Your task to perform on an android device: all mails in gmail Image 0: 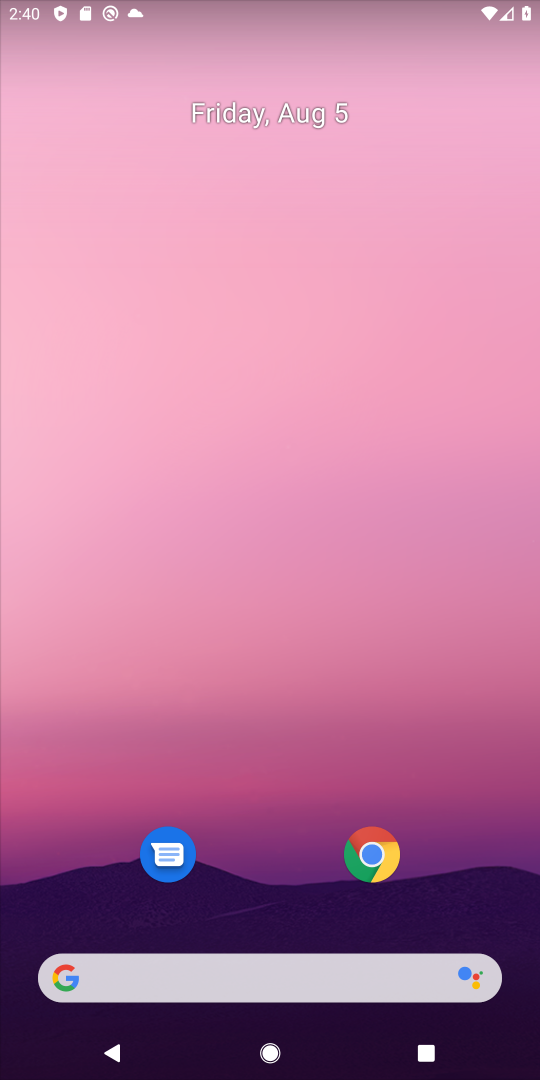
Step 0: drag from (109, 1020) to (220, 576)
Your task to perform on an android device: all mails in gmail Image 1: 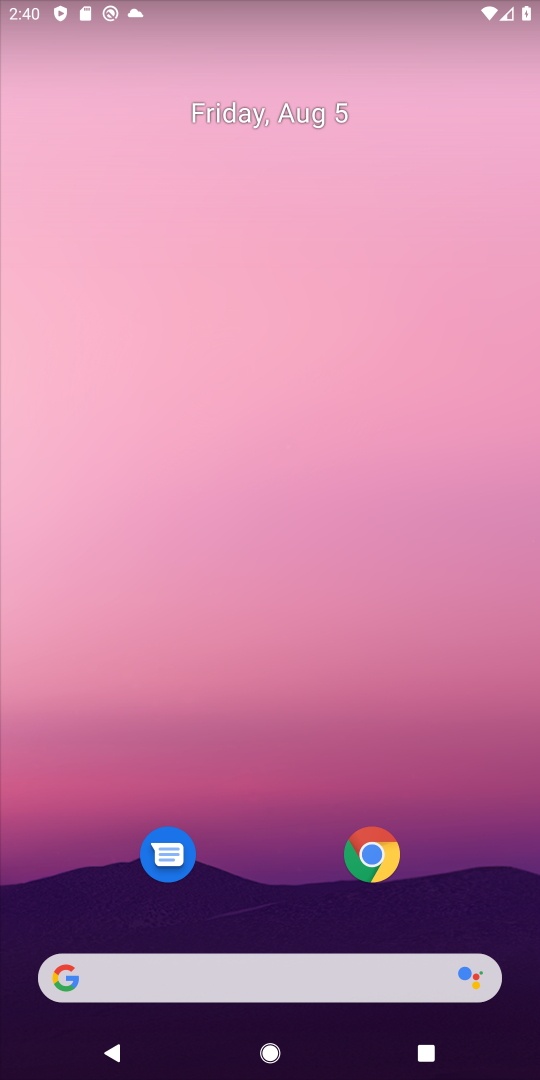
Step 1: drag from (37, 986) to (288, 388)
Your task to perform on an android device: all mails in gmail Image 2: 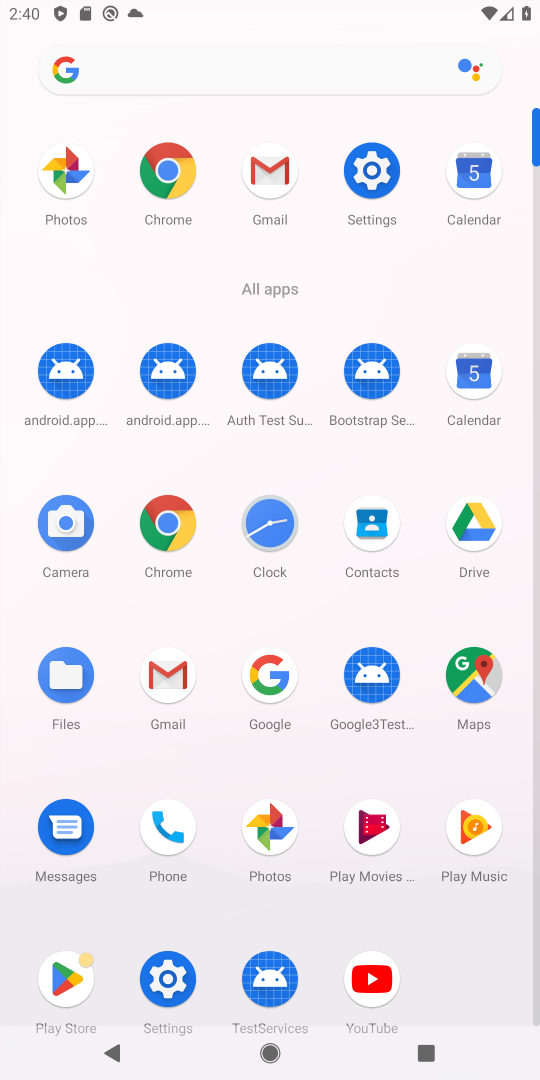
Step 2: click (164, 662)
Your task to perform on an android device: all mails in gmail Image 3: 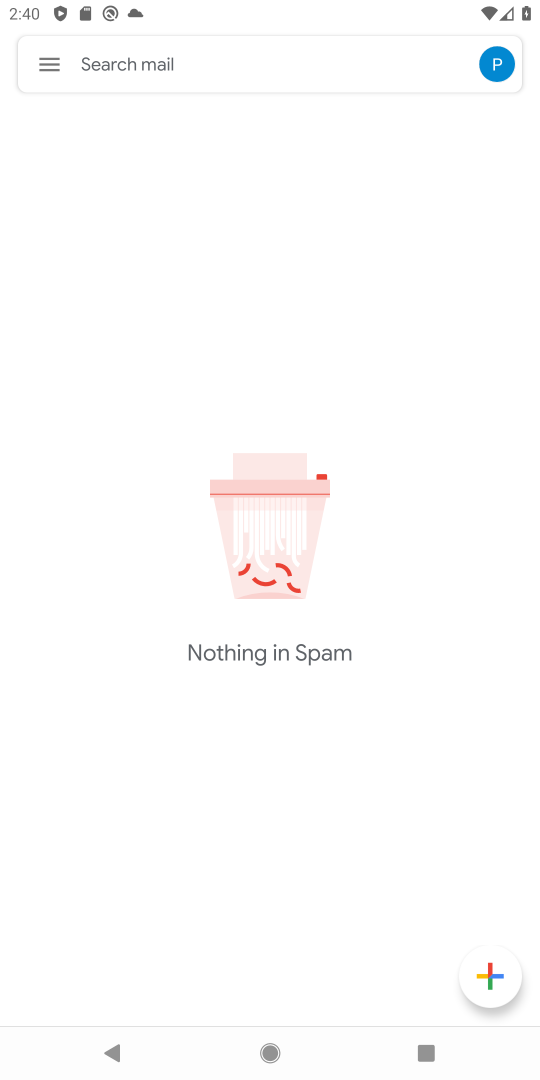
Step 3: click (54, 51)
Your task to perform on an android device: all mails in gmail Image 4: 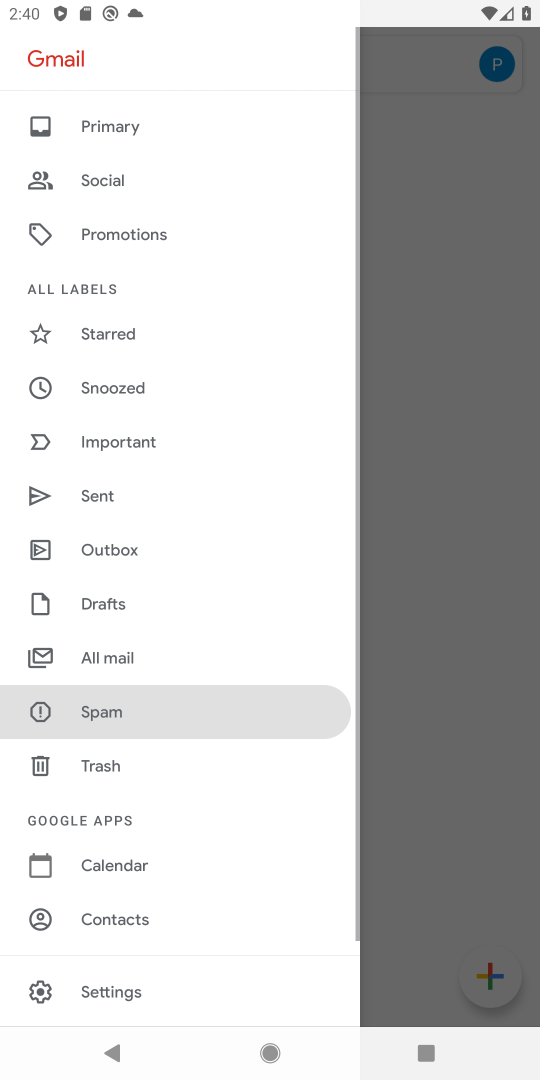
Step 4: click (53, 67)
Your task to perform on an android device: all mails in gmail Image 5: 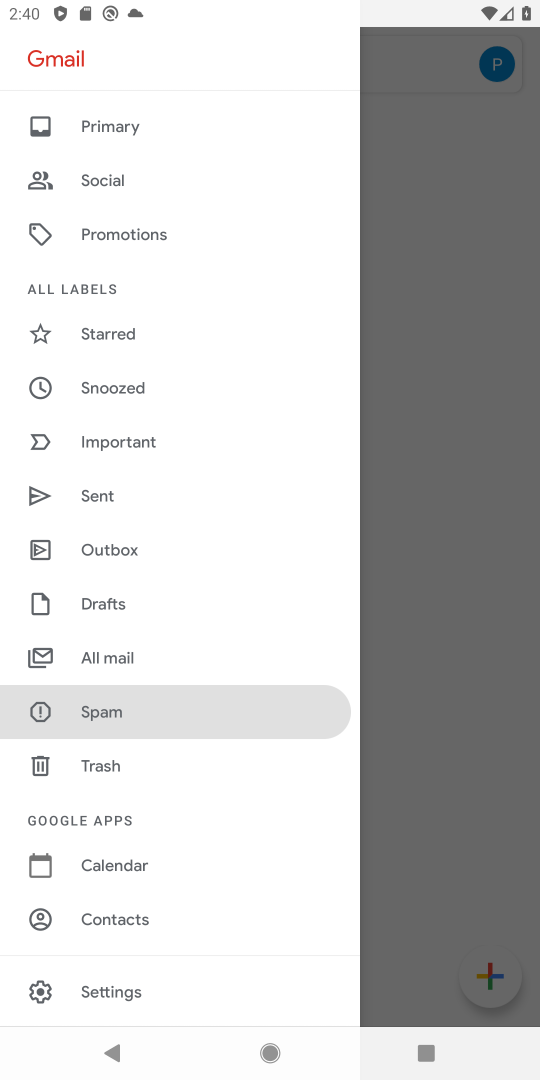
Step 5: click (104, 662)
Your task to perform on an android device: all mails in gmail Image 6: 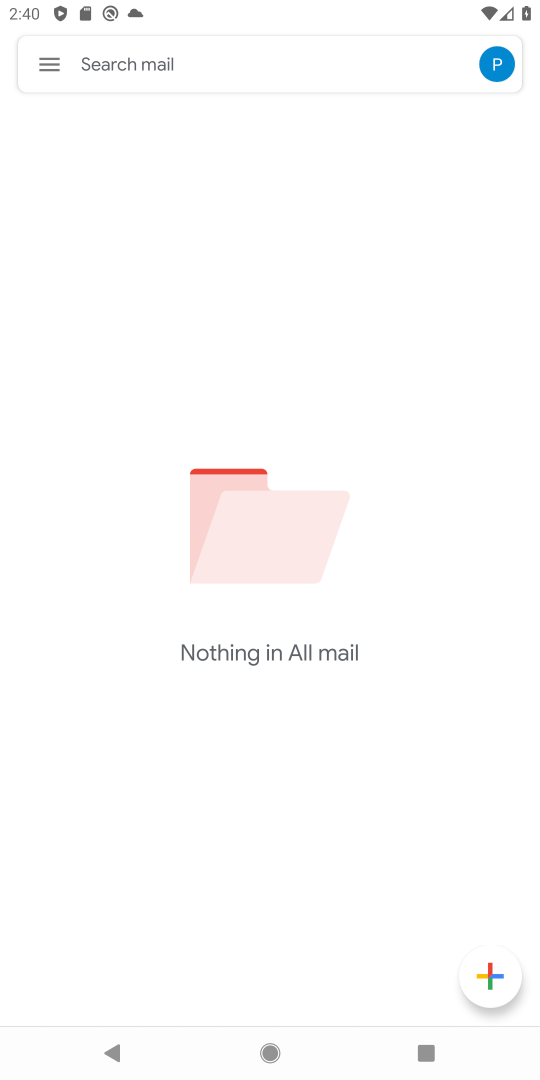
Step 6: task complete